Your task to perform on an android device: Open the Play Movies app and select the watchlist tab. Image 0: 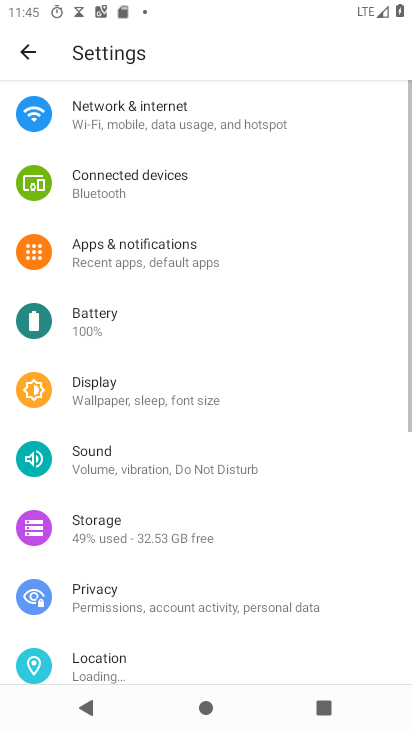
Step 0: press home button
Your task to perform on an android device: Open the Play Movies app and select the watchlist tab. Image 1: 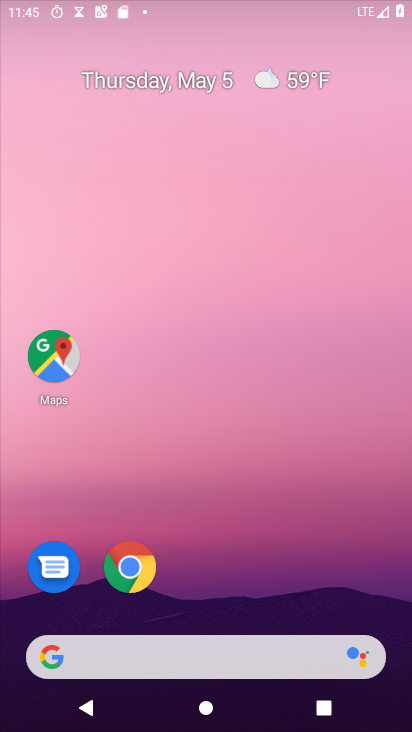
Step 1: drag from (297, 582) to (276, 42)
Your task to perform on an android device: Open the Play Movies app and select the watchlist tab. Image 2: 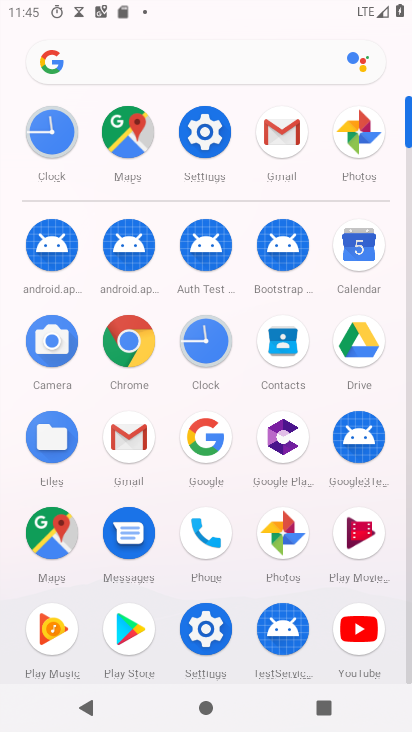
Step 2: click (354, 539)
Your task to perform on an android device: Open the Play Movies app and select the watchlist tab. Image 3: 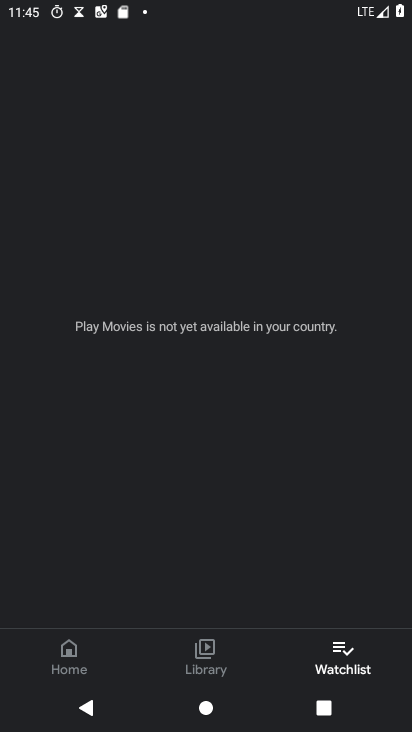
Step 3: click (345, 672)
Your task to perform on an android device: Open the Play Movies app and select the watchlist tab. Image 4: 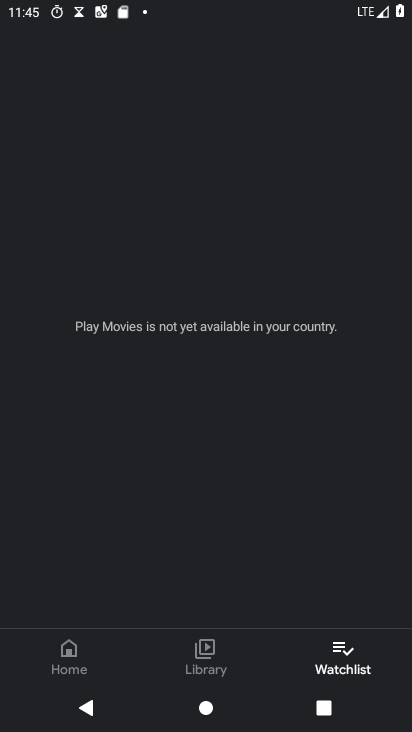
Step 4: task complete